Your task to perform on an android device: turn on data saver in the chrome app Image 0: 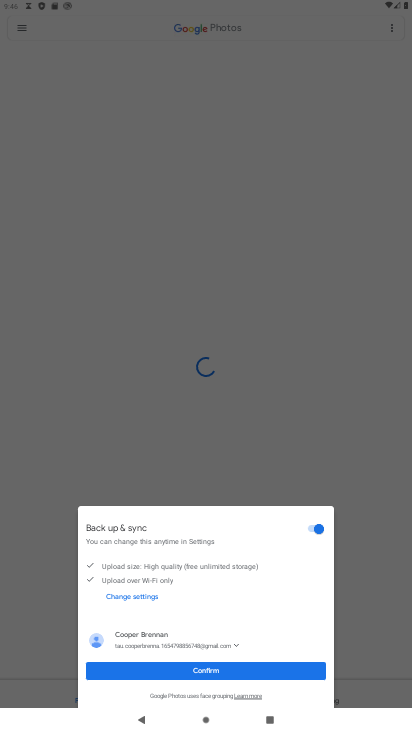
Step 0: press home button
Your task to perform on an android device: turn on data saver in the chrome app Image 1: 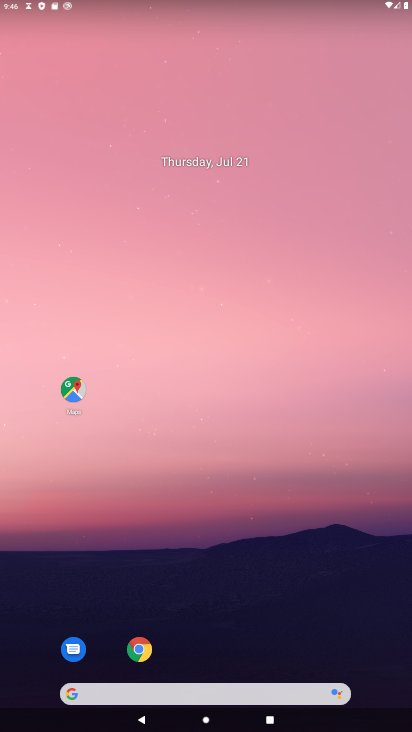
Step 1: click (143, 649)
Your task to perform on an android device: turn on data saver in the chrome app Image 2: 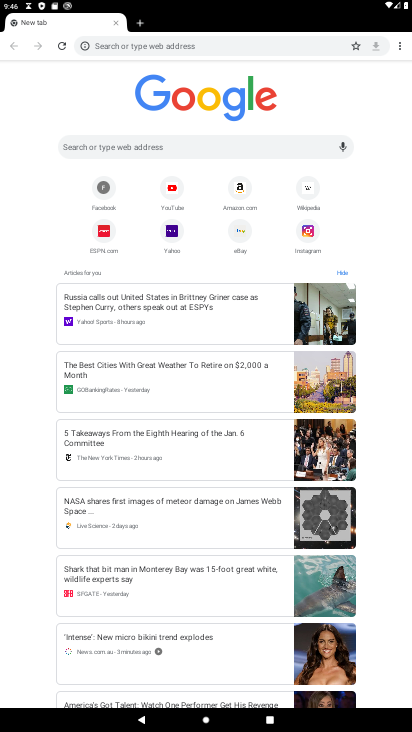
Step 2: click (398, 49)
Your task to perform on an android device: turn on data saver in the chrome app Image 3: 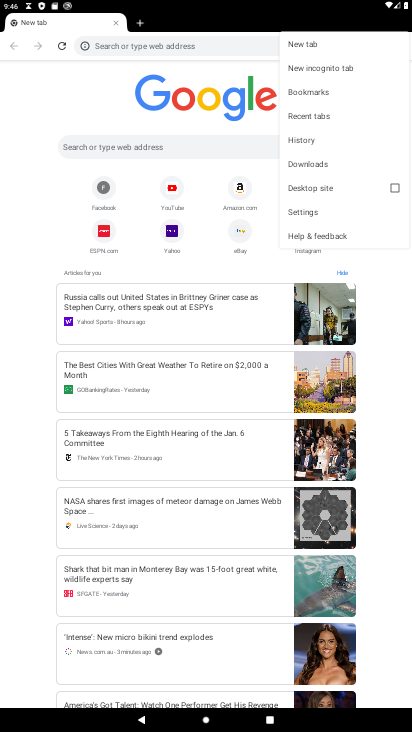
Step 3: click (327, 213)
Your task to perform on an android device: turn on data saver in the chrome app Image 4: 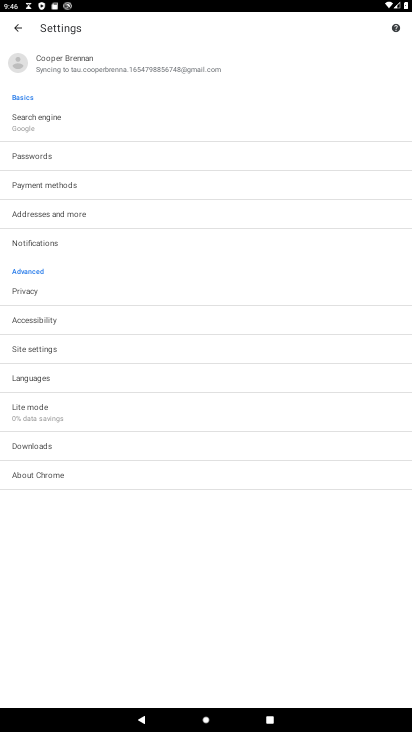
Step 4: click (79, 397)
Your task to perform on an android device: turn on data saver in the chrome app Image 5: 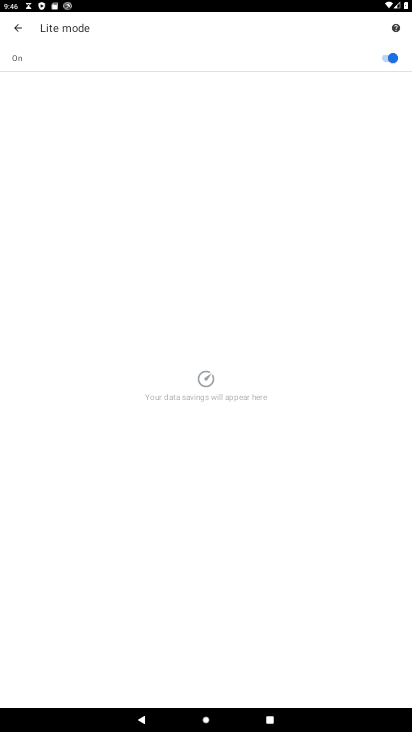
Step 5: task complete